Your task to perform on an android device: check android version Image 0: 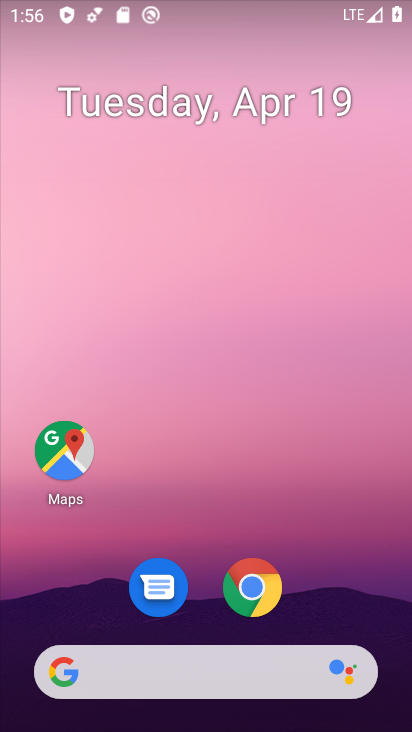
Step 0: drag from (313, 496) to (206, 71)
Your task to perform on an android device: check android version Image 1: 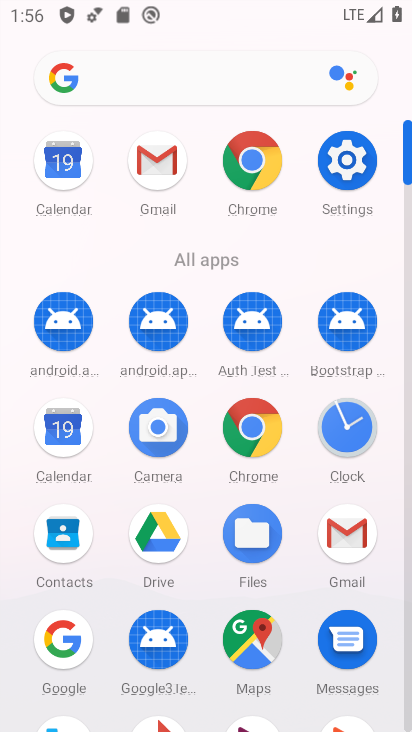
Step 1: click (355, 174)
Your task to perform on an android device: check android version Image 2: 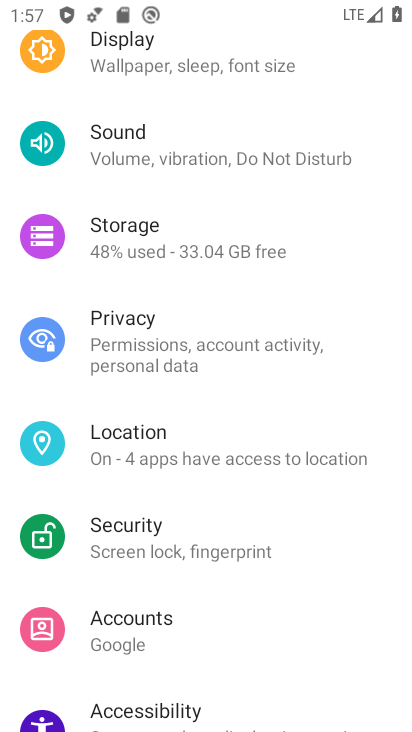
Step 2: drag from (250, 642) to (220, 171)
Your task to perform on an android device: check android version Image 3: 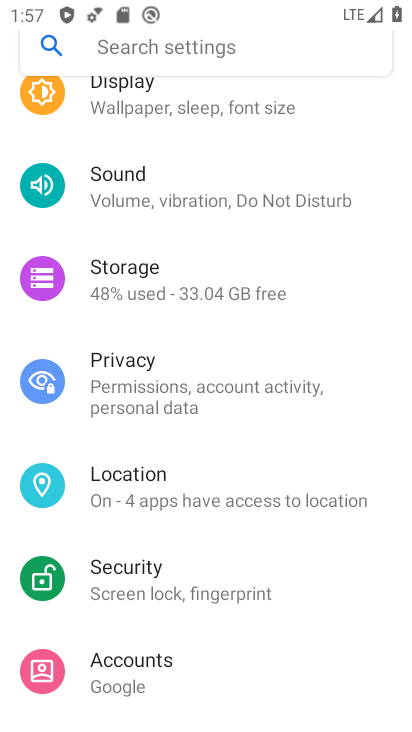
Step 3: click (195, 250)
Your task to perform on an android device: check android version Image 4: 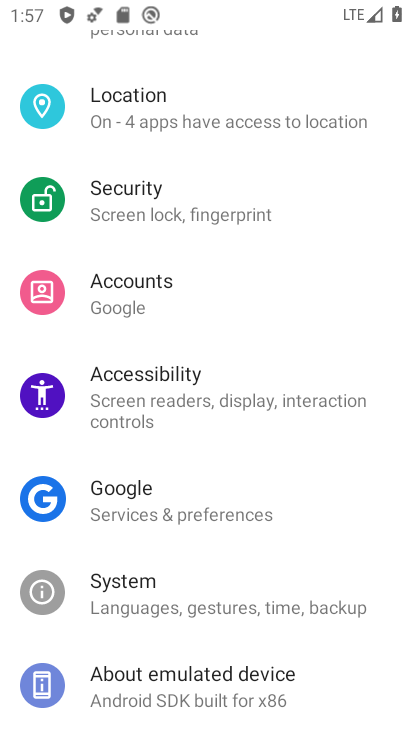
Step 4: drag from (230, 125) to (225, 85)
Your task to perform on an android device: check android version Image 5: 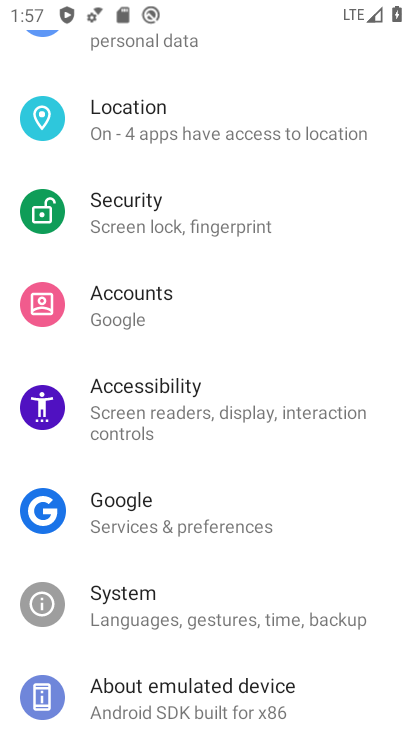
Step 5: drag from (206, 122) to (171, 157)
Your task to perform on an android device: check android version Image 6: 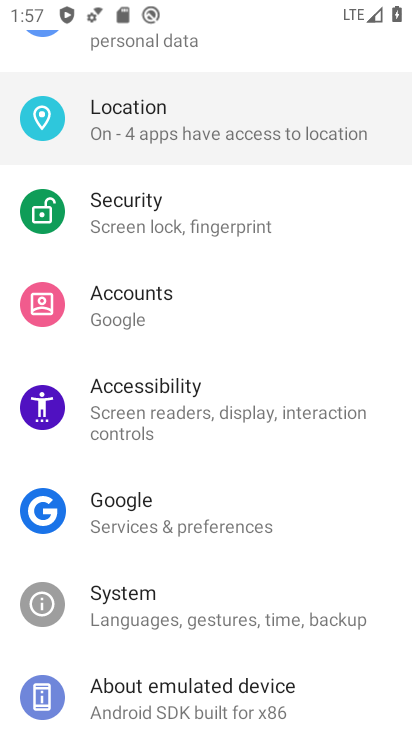
Step 6: click (195, 450)
Your task to perform on an android device: check android version Image 7: 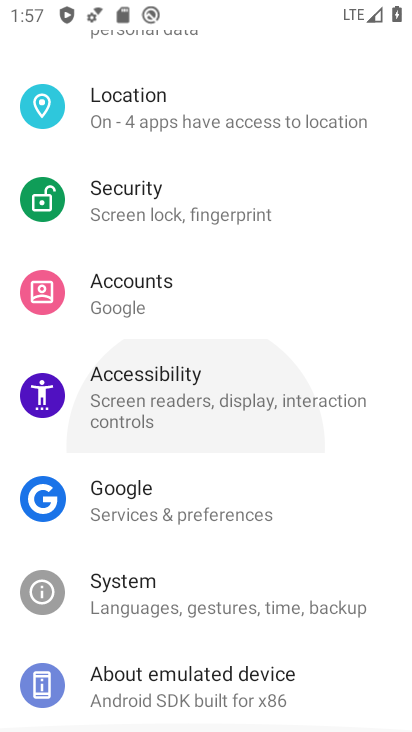
Step 7: click (163, 477)
Your task to perform on an android device: check android version Image 8: 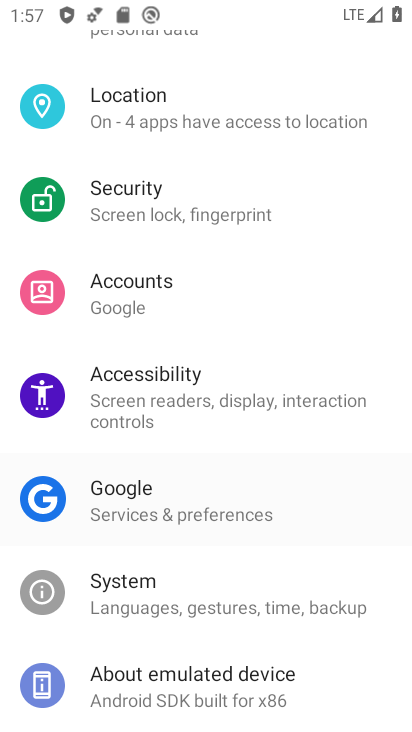
Step 8: click (162, 670)
Your task to perform on an android device: check android version Image 9: 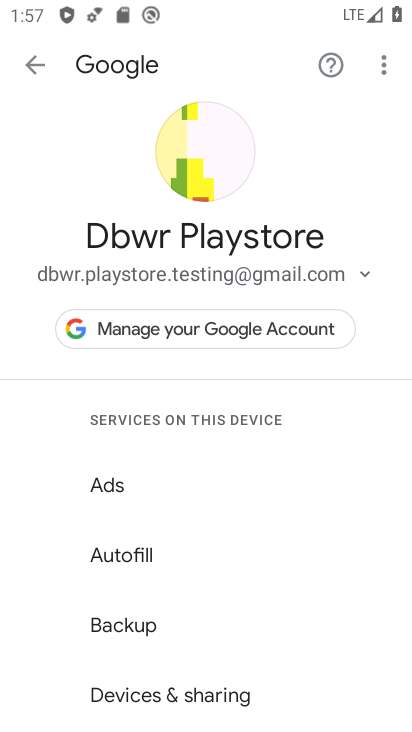
Step 9: click (37, 64)
Your task to perform on an android device: check android version Image 10: 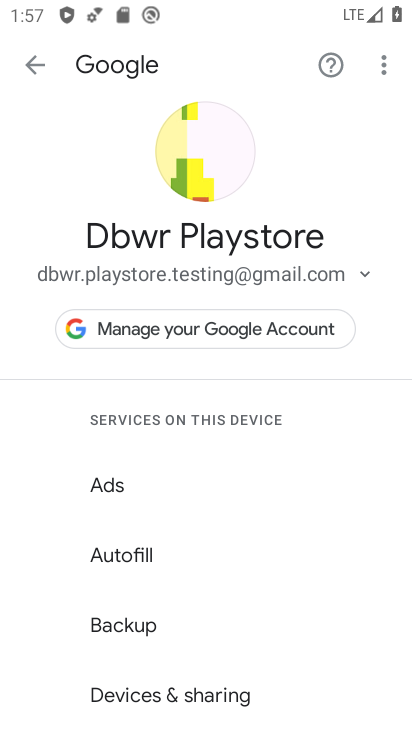
Step 10: click (33, 67)
Your task to perform on an android device: check android version Image 11: 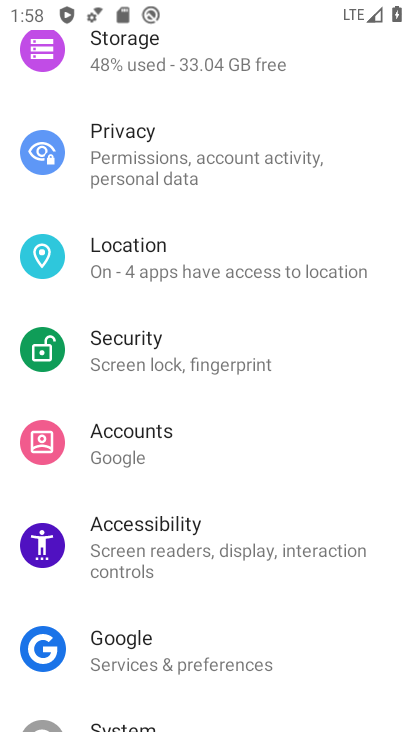
Step 11: drag from (195, 555) to (170, 168)
Your task to perform on an android device: check android version Image 12: 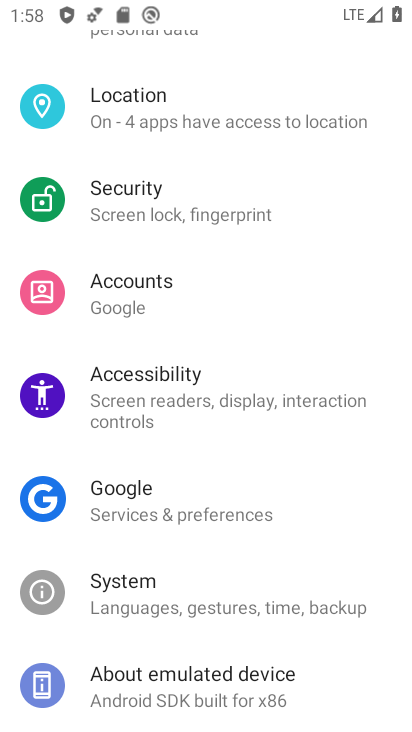
Step 12: drag from (176, 448) to (171, 189)
Your task to perform on an android device: check android version Image 13: 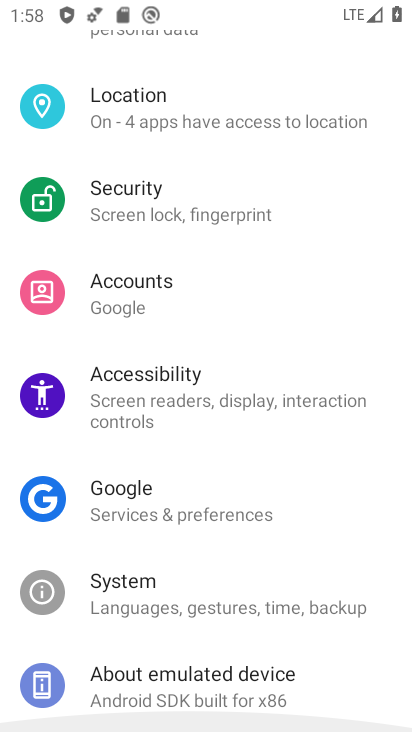
Step 13: click (206, 681)
Your task to perform on an android device: check android version Image 14: 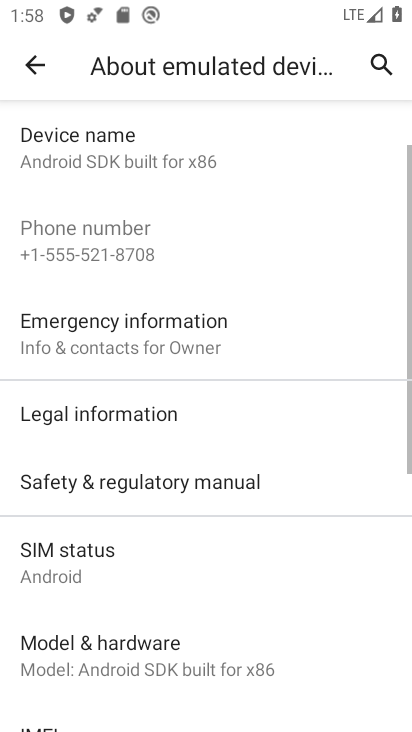
Step 14: drag from (214, 502) to (208, 198)
Your task to perform on an android device: check android version Image 15: 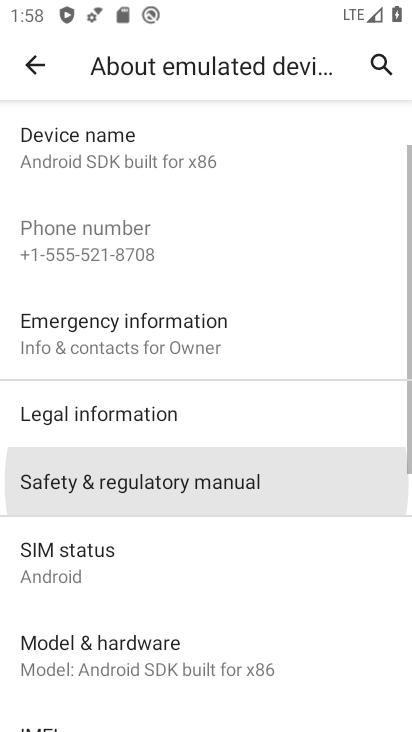
Step 15: drag from (237, 561) to (189, 171)
Your task to perform on an android device: check android version Image 16: 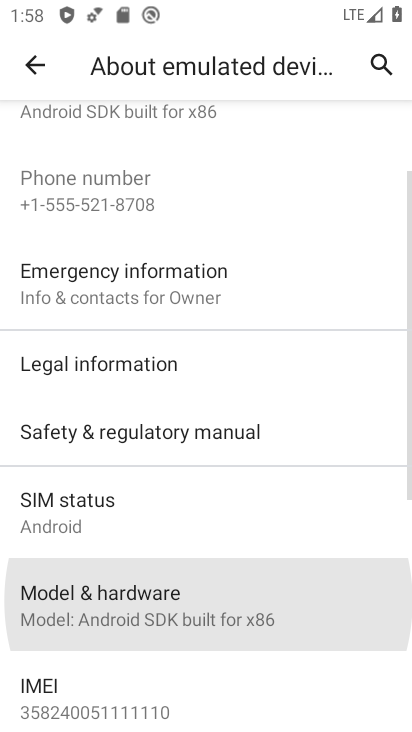
Step 16: drag from (233, 599) to (168, 140)
Your task to perform on an android device: check android version Image 17: 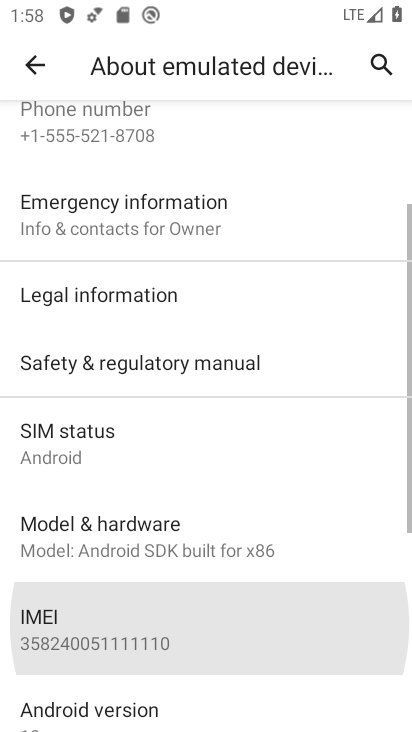
Step 17: drag from (174, 398) to (147, 205)
Your task to perform on an android device: check android version Image 18: 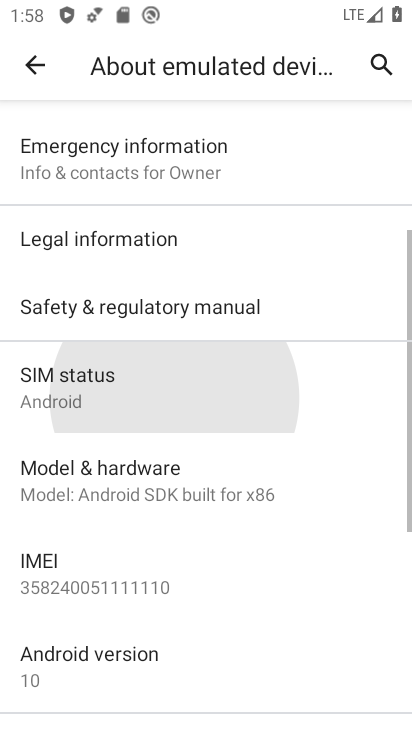
Step 18: drag from (224, 546) to (185, 56)
Your task to perform on an android device: check android version Image 19: 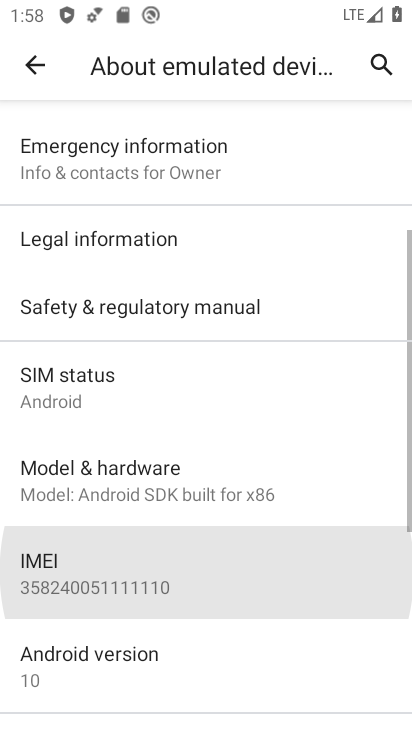
Step 19: drag from (212, 489) to (112, 174)
Your task to perform on an android device: check android version Image 20: 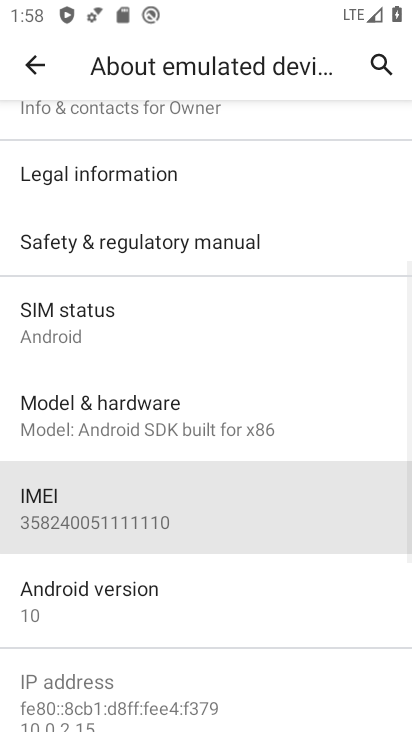
Step 20: click (100, 184)
Your task to perform on an android device: check android version Image 21: 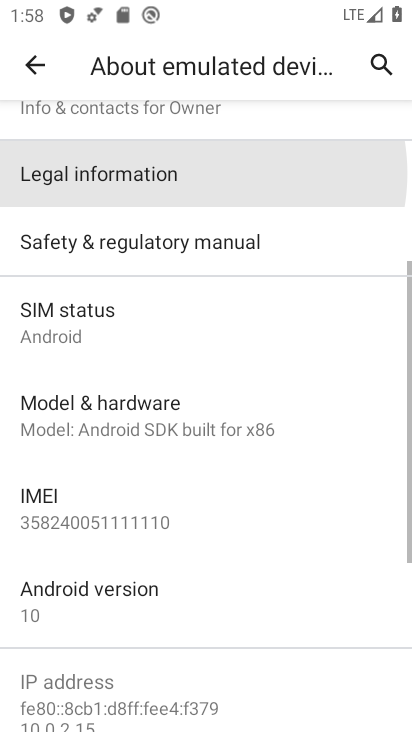
Step 21: drag from (121, 660) to (119, 236)
Your task to perform on an android device: check android version Image 22: 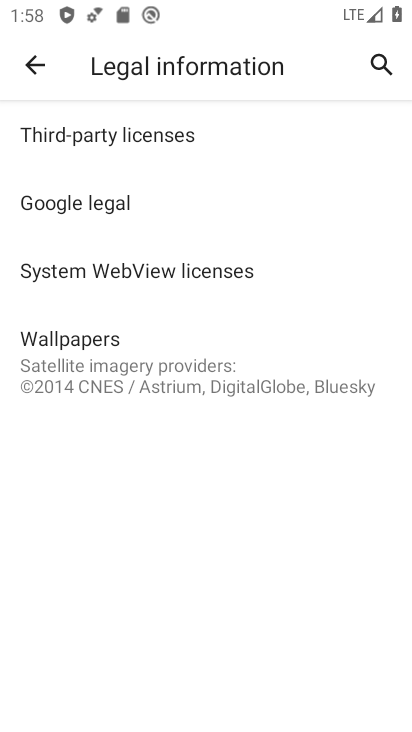
Step 22: drag from (152, 627) to (166, 95)
Your task to perform on an android device: check android version Image 23: 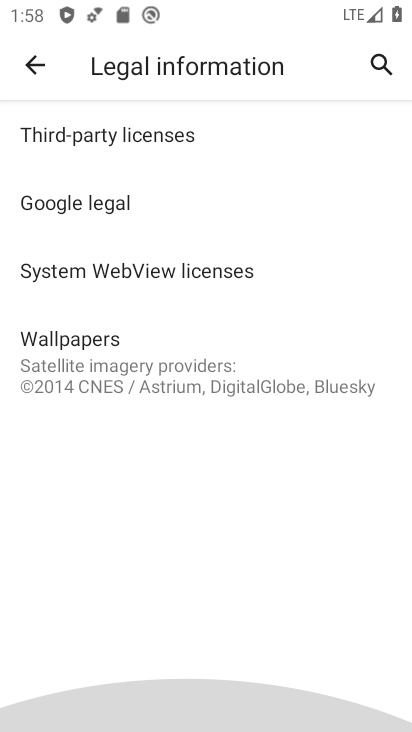
Step 23: drag from (190, 479) to (166, 261)
Your task to perform on an android device: check android version Image 24: 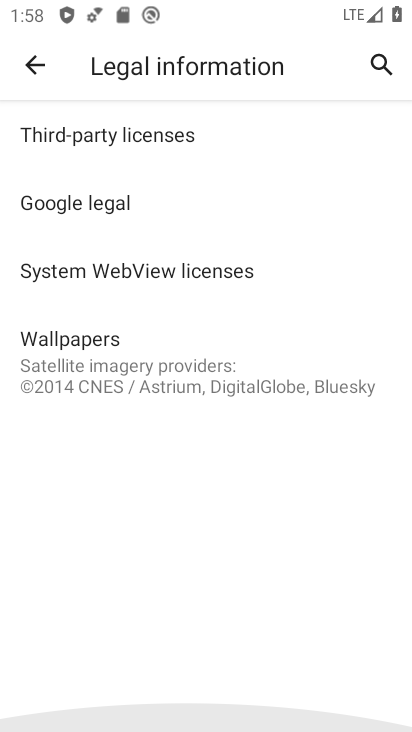
Step 24: drag from (175, 153) to (176, 17)
Your task to perform on an android device: check android version Image 25: 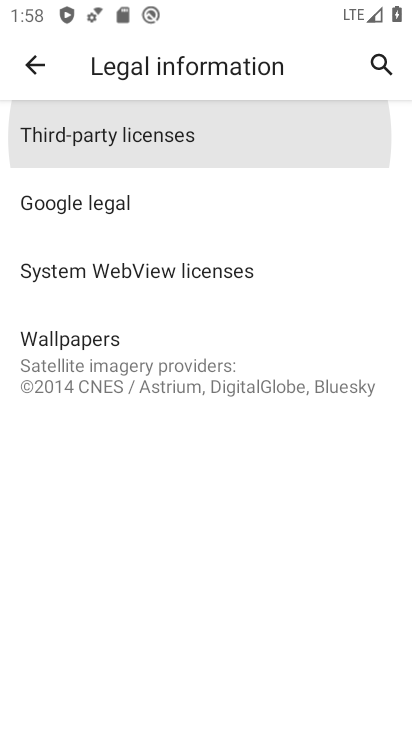
Step 25: drag from (145, 186) to (119, 420)
Your task to perform on an android device: check android version Image 26: 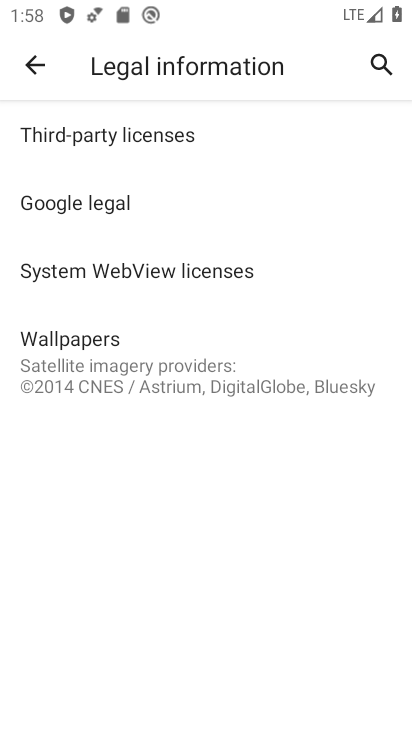
Step 26: click (33, 54)
Your task to perform on an android device: check android version Image 27: 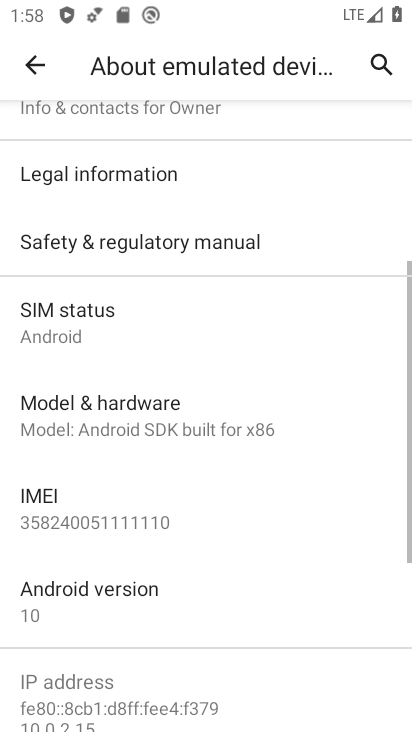
Step 27: task complete